Your task to perform on an android device: delete browsing data in the chrome app Image 0: 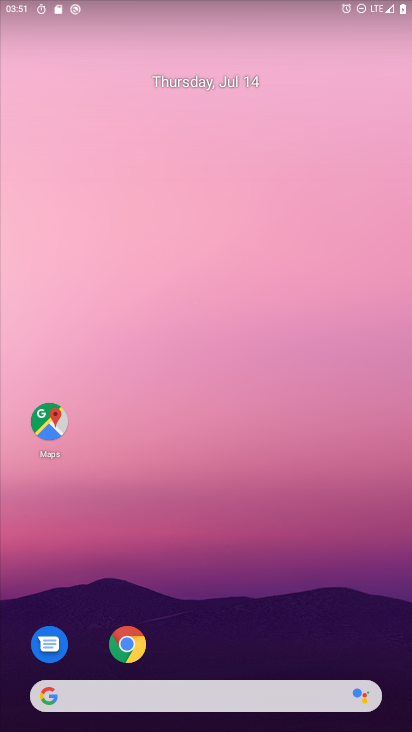
Step 0: drag from (310, 631) to (185, 138)
Your task to perform on an android device: delete browsing data in the chrome app Image 1: 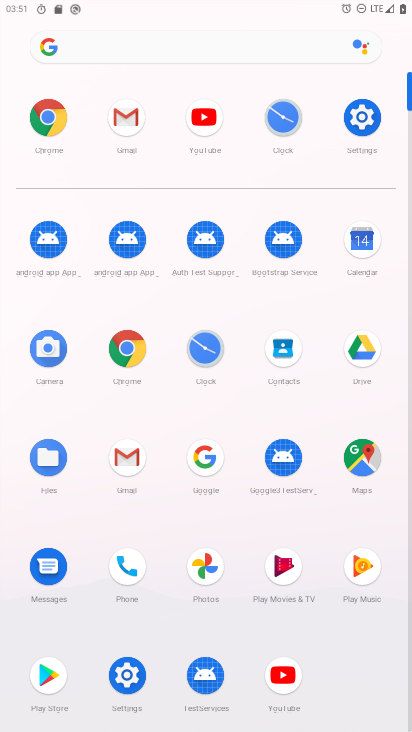
Step 1: click (125, 354)
Your task to perform on an android device: delete browsing data in the chrome app Image 2: 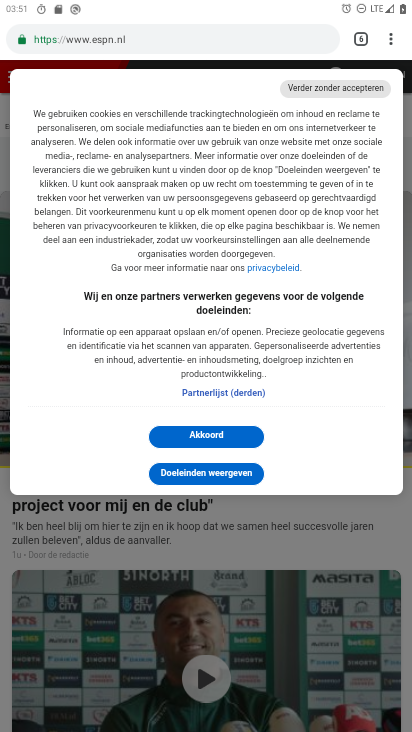
Step 2: drag from (393, 34) to (246, 467)
Your task to perform on an android device: delete browsing data in the chrome app Image 3: 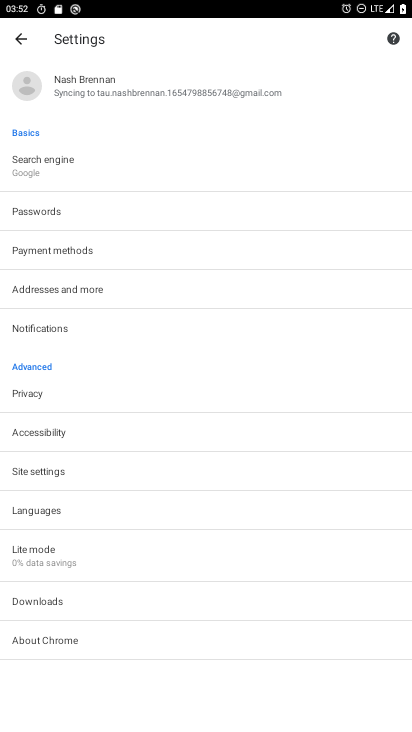
Step 3: click (13, 31)
Your task to perform on an android device: delete browsing data in the chrome app Image 4: 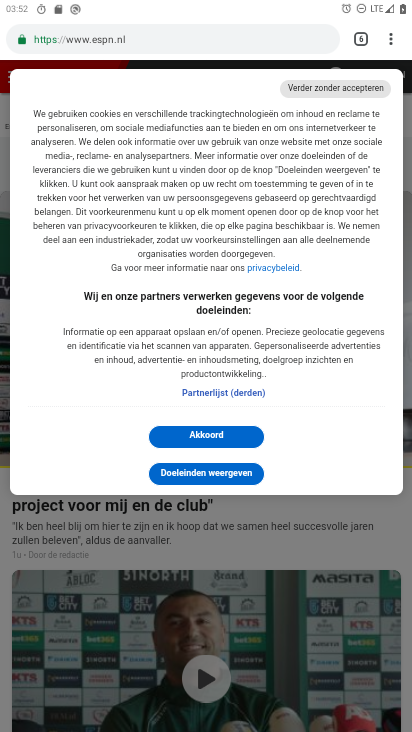
Step 4: drag from (388, 41) to (245, 230)
Your task to perform on an android device: delete browsing data in the chrome app Image 5: 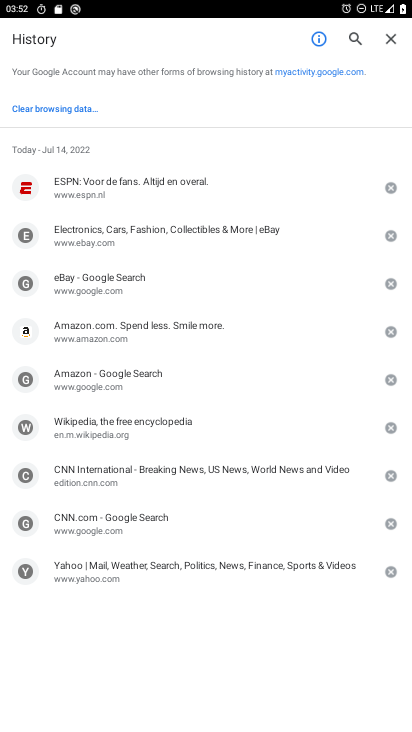
Step 5: click (71, 113)
Your task to perform on an android device: delete browsing data in the chrome app Image 6: 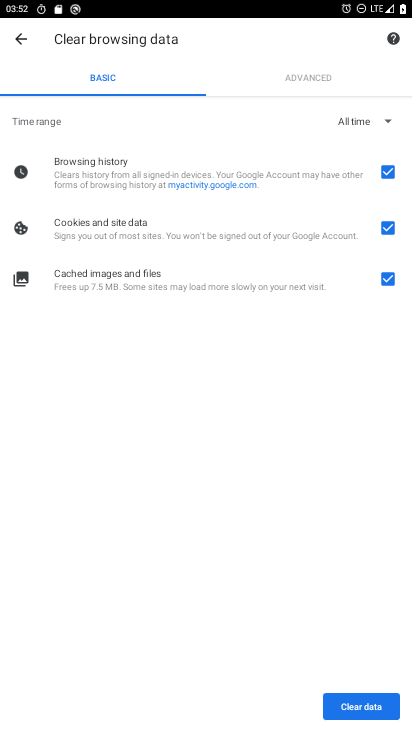
Step 6: click (366, 699)
Your task to perform on an android device: delete browsing data in the chrome app Image 7: 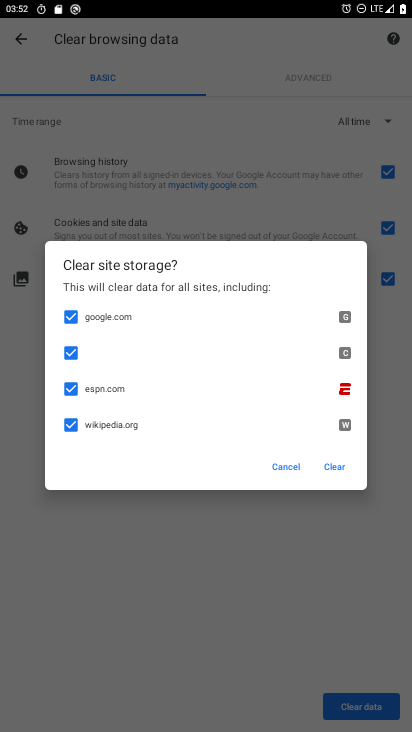
Step 7: click (343, 468)
Your task to perform on an android device: delete browsing data in the chrome app Image 8: 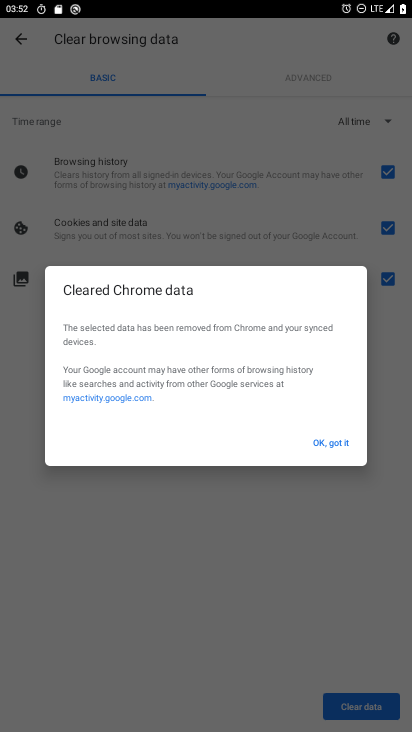
Step 8: task complete